Your task to perform on an android device: Open Chrome and go to the settings page Image 0: 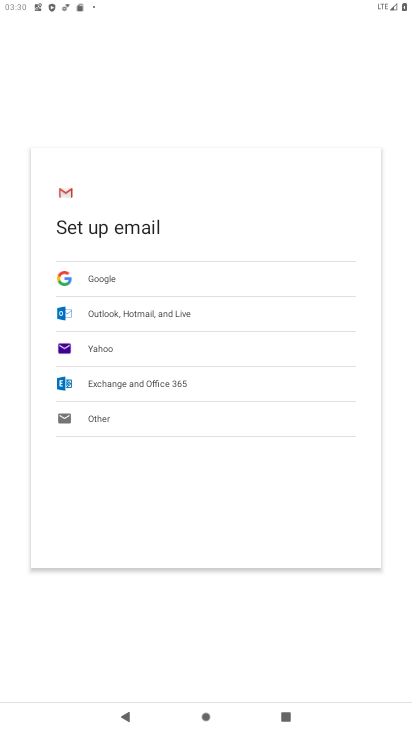
Step 0: press home button
Your task to perform on an android device: Open Chrome and go to the settings page Image 1: 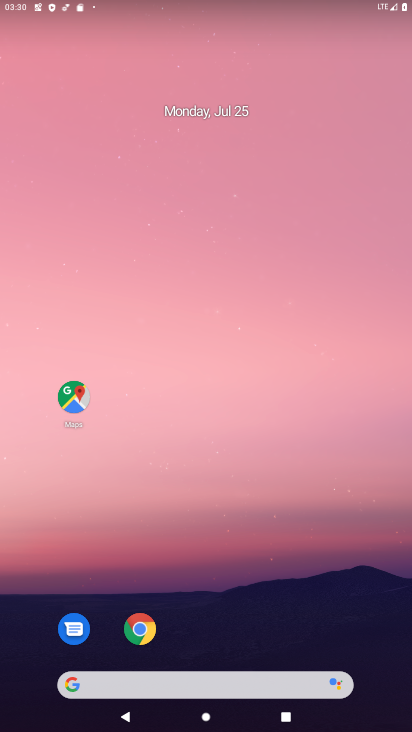
Step 1: click (135, 641)
Your task to perform on an android device: Open Chrome and go to the settings page Image 2: 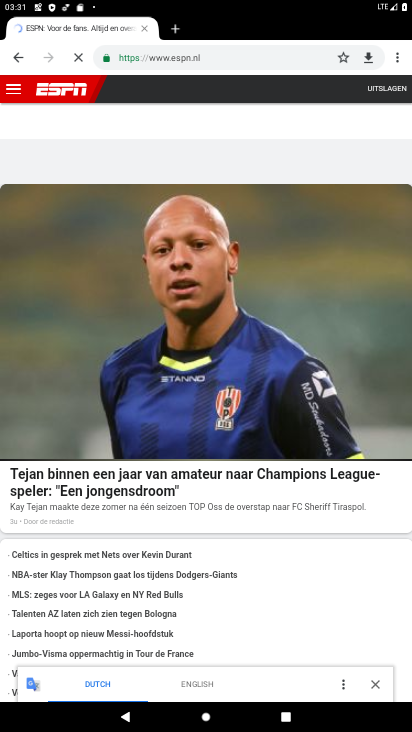
Step 2: task complete